Your task to perform on an android device: uninstall "Adobe Express: Graphic Design" Image 0: 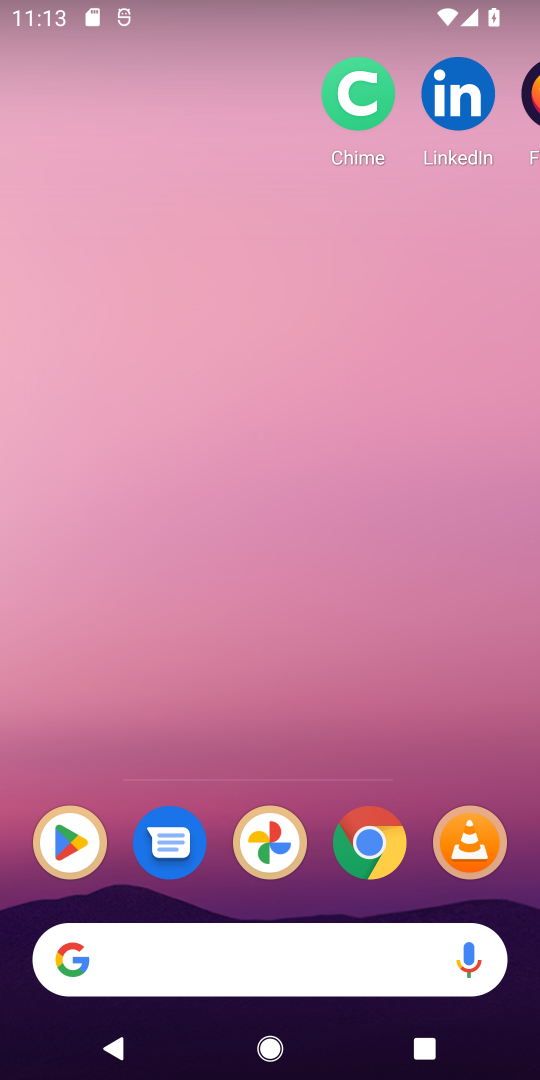
Step 0: press home button
Your task to perform on an android device: uninstall "Adobe Express: Graphic Design" Image 1: 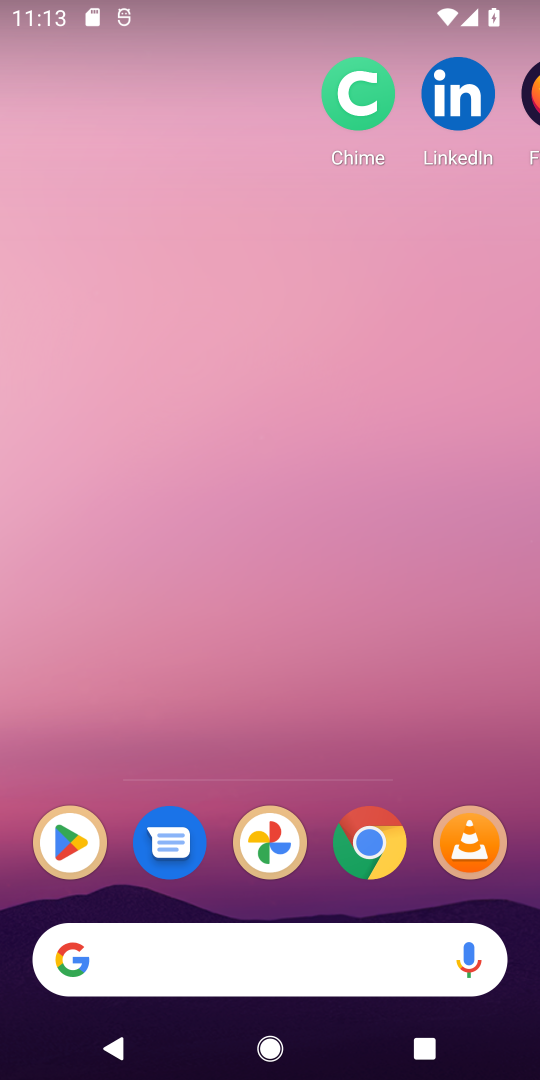
Step 1: click (526, 892)
Your task to perform on an android device: uninstall "Adobe Express: Graphic Design" Image 2: 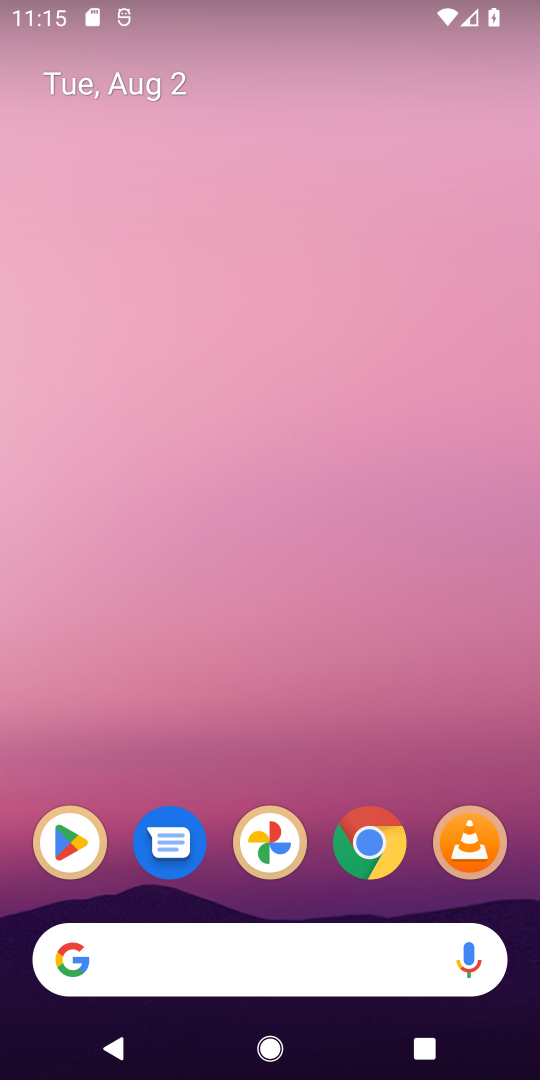
Step 2: drag from (19, 474) to (4, 25)
Your task to perform on an android device: uninstall "Adobe Express: Graphic Design" Image 3: 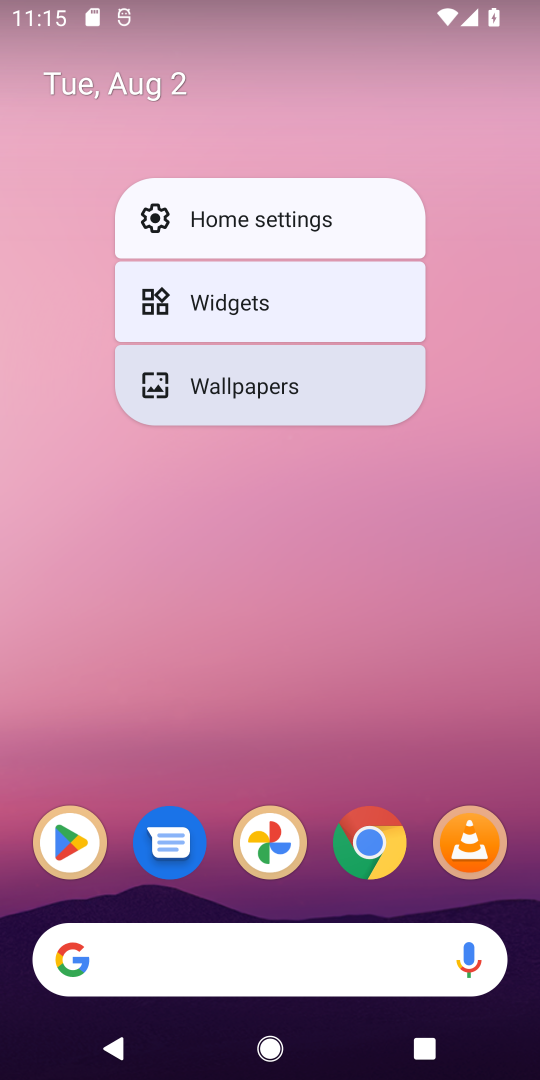
Step 3: click (58, 823)
Your task to perform on an android device: uninstall "Adobe Express: Graphic Design" Image 4: 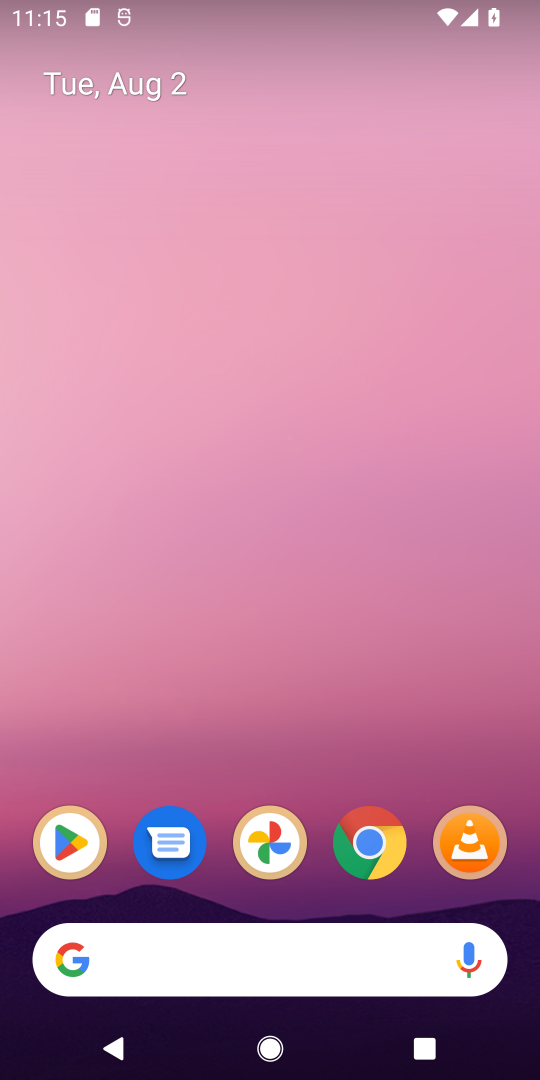
Step 4: click (58, 823)
Your task to perform on an android device: uninstall "Adobe Express: Graphic Design" Image 5: 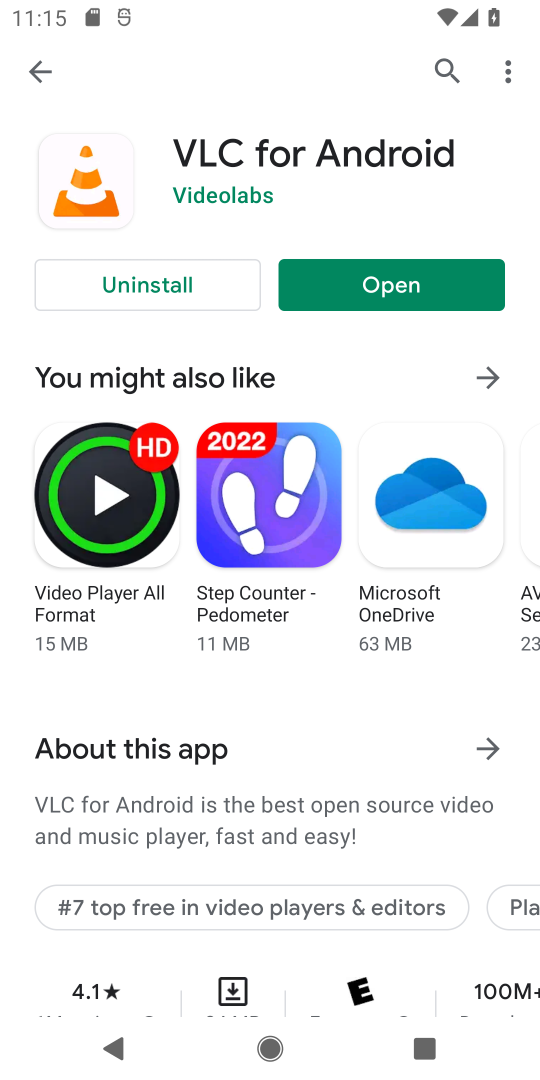
Step 5: click (434, 61)
Your task to perform on an android device: uninstall "Adobe Express: Graphic Design" Image 6: 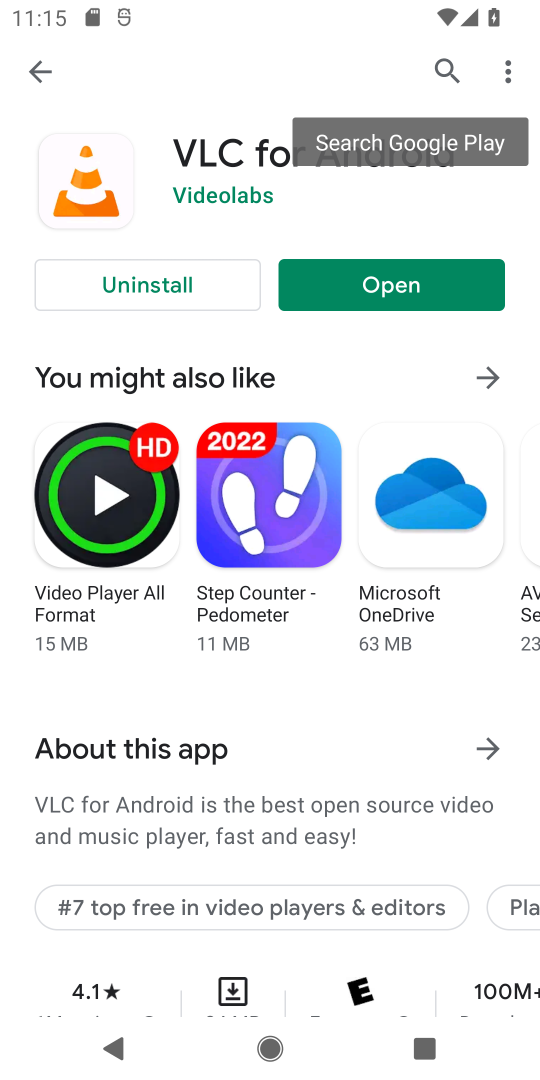
Step 6: click (434, 61)
Your task to perform on an android device: uninstall "Adobe Express: Graphic Design" Image 7: 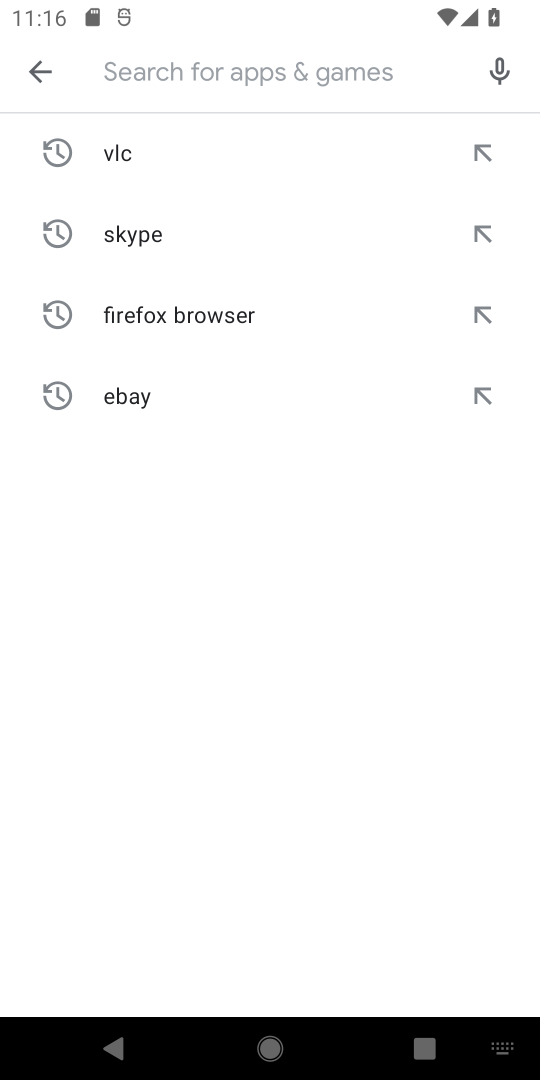
Step 7: type "Adobe Express: Graphic Design"
Your task to perform on an android device: uninstall "Adobe Express: Graphic Design" Image 8: 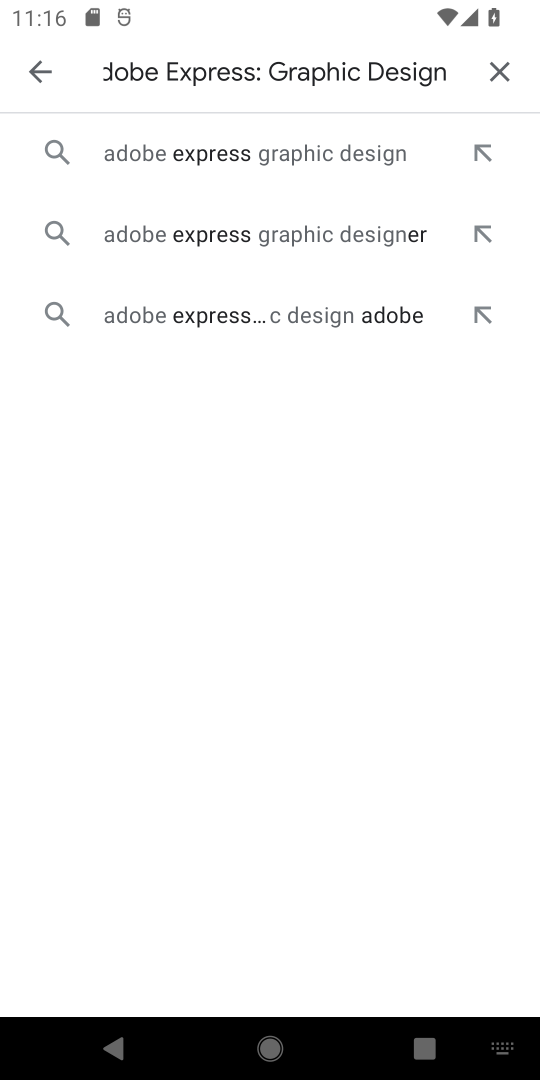
Step 8: click (418, 142)
Your task to perform on an android device: uninstall "Adobe Express: Graphic Design" Image 9: 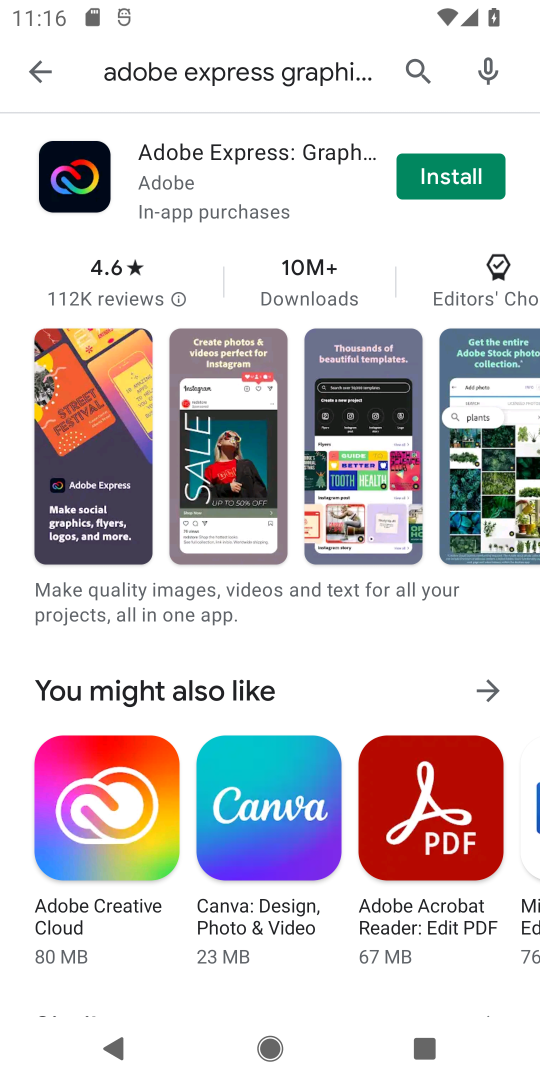
Step 9: task complete